Your task to perform on an android device: turn on wifi Image 0: 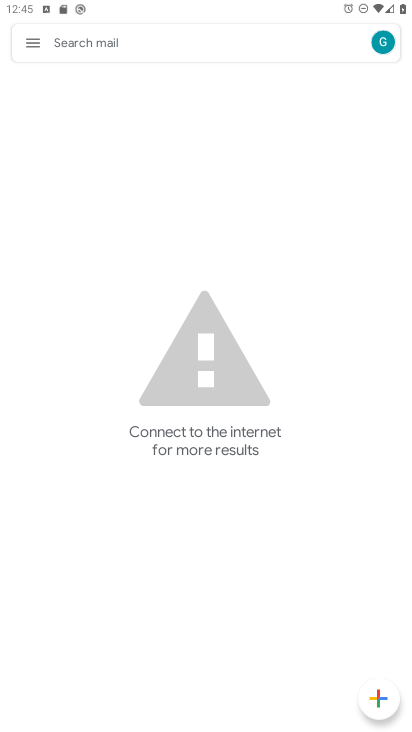
Step 0: drag from (116, 13) to (69, 668)
Your task to perform on an android device: turn on wifi Image 1: 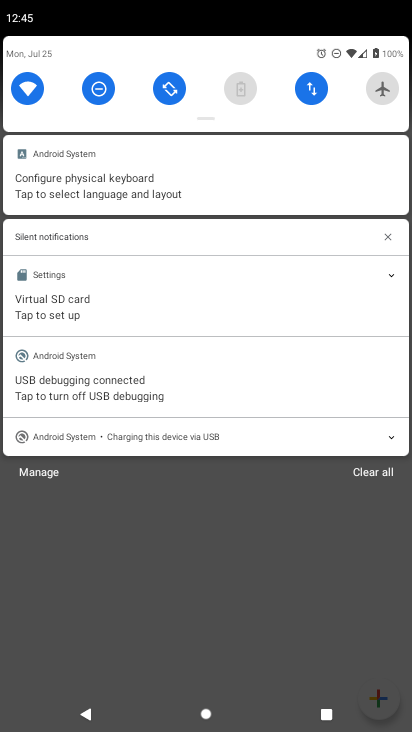
Step 1: task complete